Your task to perform on an android device: turn on airplane mode Image 0: 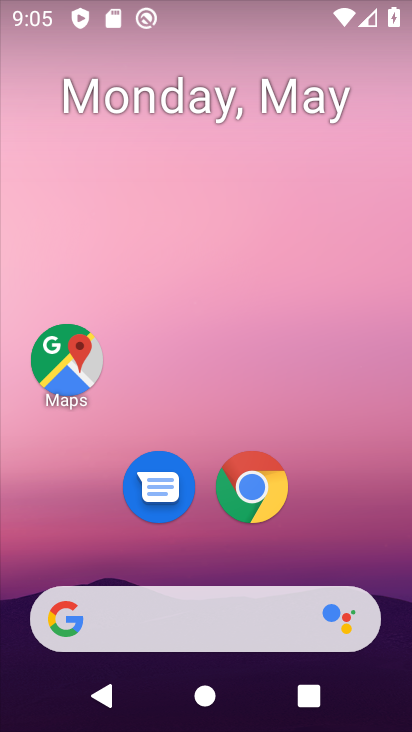
Step 0: drag from (352, 557) to (360, 264)
Your task to perform on an android device: turn on airplane mode Image 1: 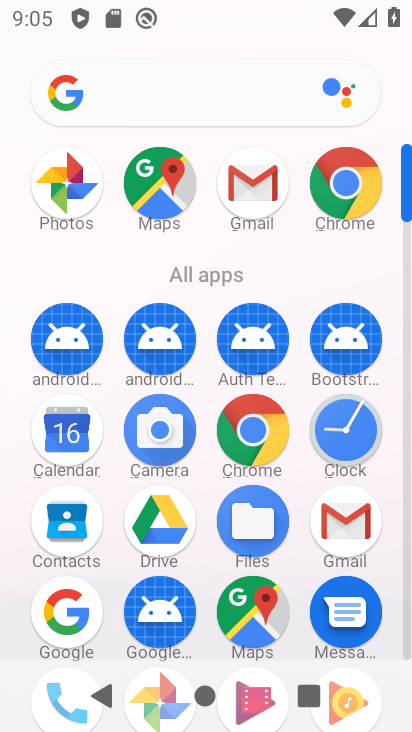
Step 1: drag from (321, 518) to (363, 262)
Your task to perform on an android device: turn on airplane mode Image 2: 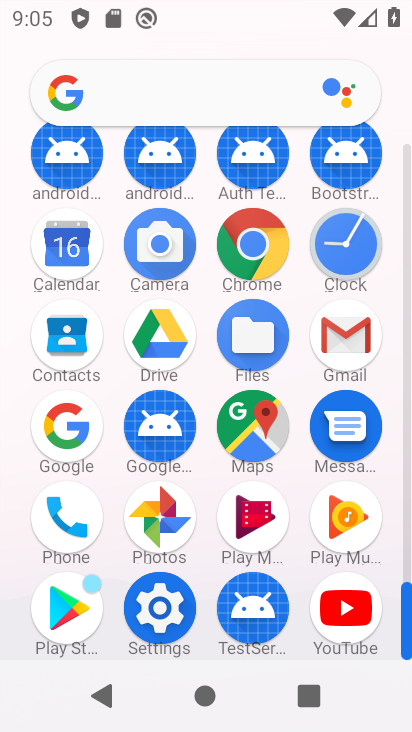
Step 2: click (152, 611)
Your task to perform on an android device: turn on airplane mode Image 3: 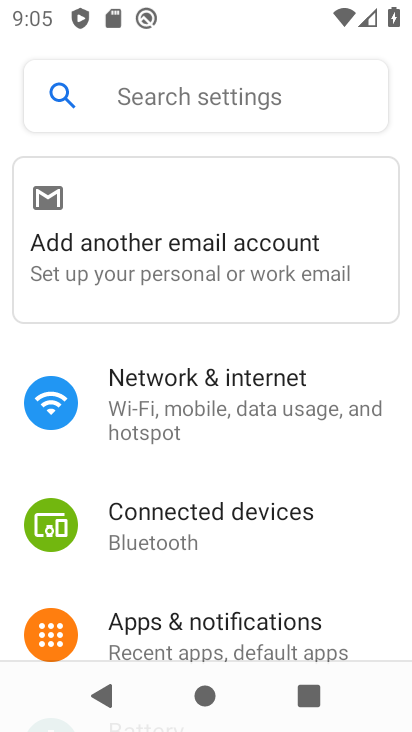
Step 3: drag from (227, 549) to (251, 387)
Your task to perform on an android device: turn on airplane mode Image 4: 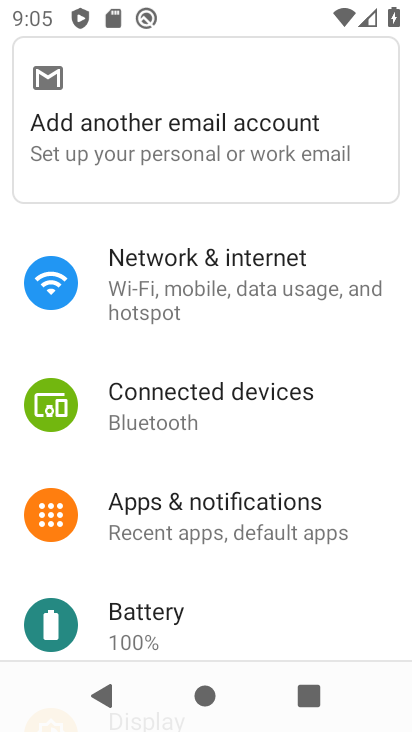
Step 4: click (210, 276)
Your task to perform on an android device: turn on airplane mode Image 5: 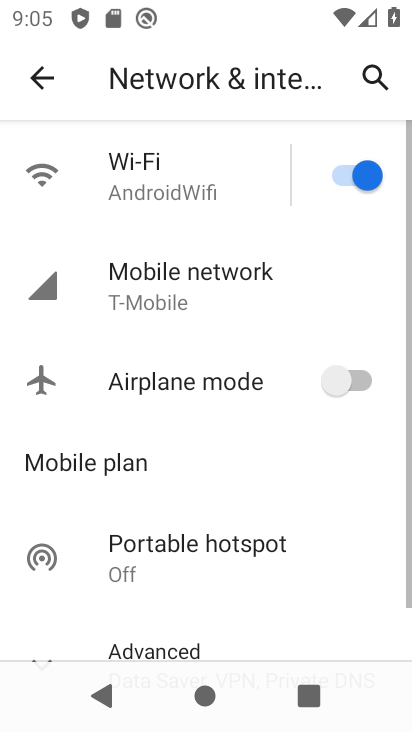
Step 5: drag from (271, 579) to (297, 228)
Your task to perform on an android device: turn on airplane mode Image 6: 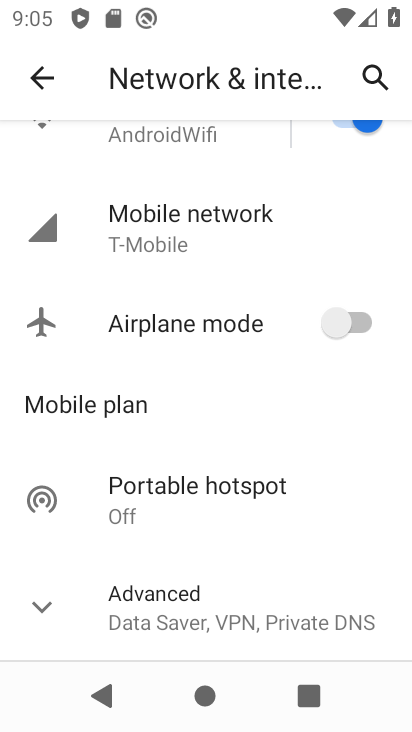
Step 6: click (359, 323)
Your task to perform on an android device: turn on airplane mode Image 7: 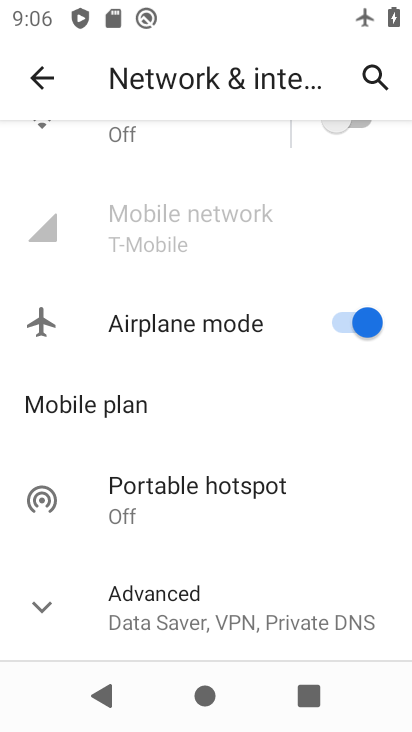
Step 7: task complete